Your task to perform on an android device: Find coffee shops on Maps Image 0: 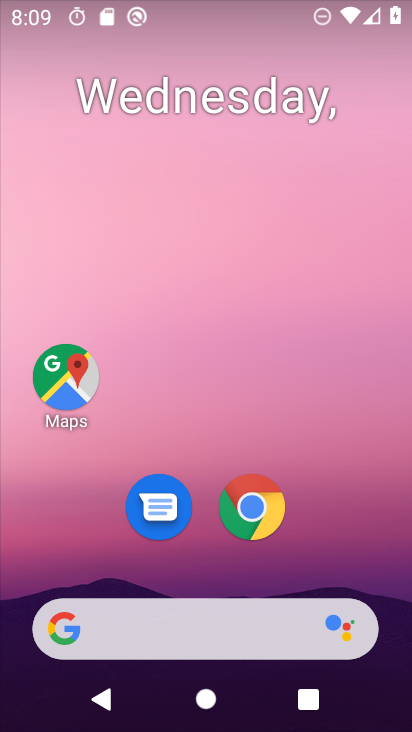
Step 0: drag from (234, 664) to (214, 135)
Your task to perform on an android device: Find coffee shops on Maps Image 1: 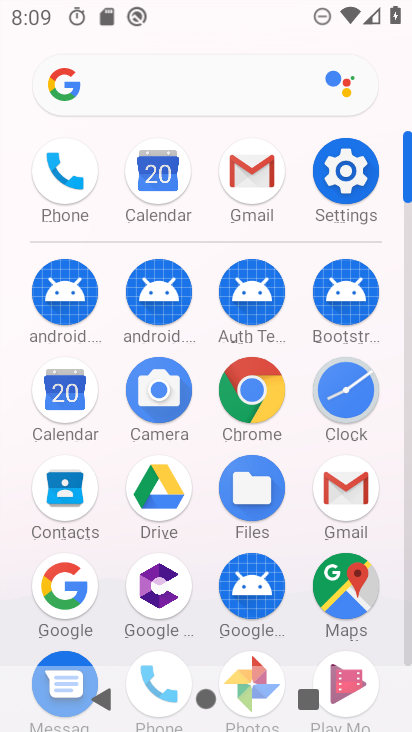
Step 1: click (360, 556)
Your task to perform on an android device: Find coffee shops on Maps Image 2: 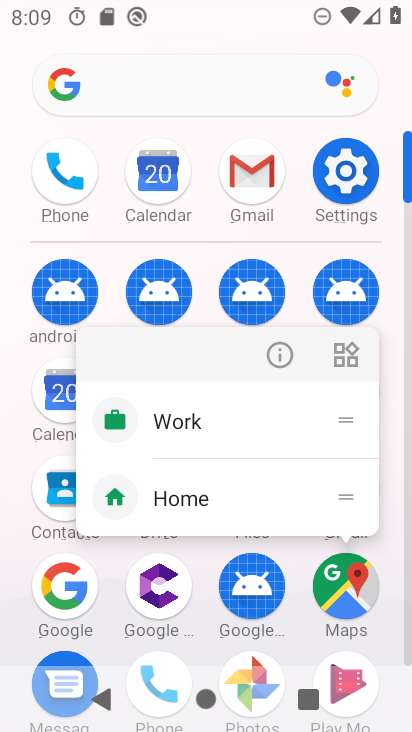
Step 2: click (339, 595)
Your task to perform on an android device: Find coffee shops on Maps Image 3: 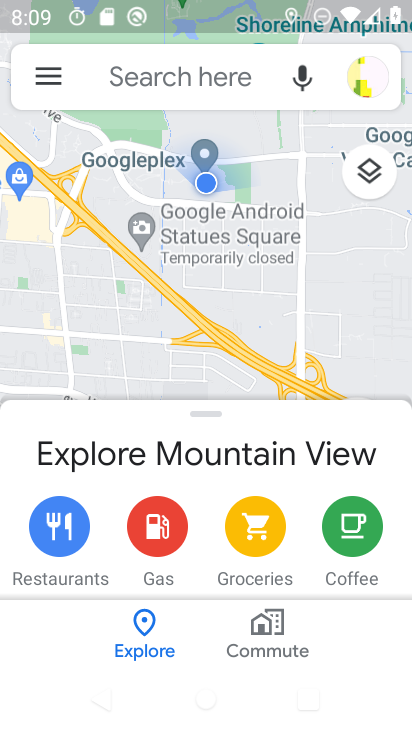
Step 3: click (144, 85)
Your task to perform on an android device: Find coffee shops on Maps Image 4: 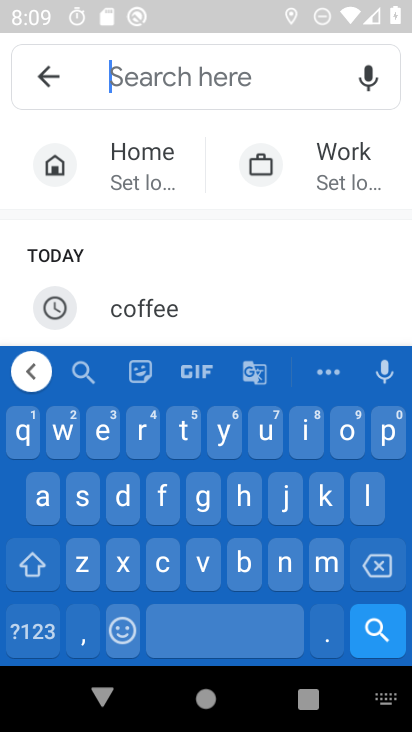
Step 4: click (177, 305)
Your task to perform on an android device: Find coffee shops on Maps Image 5: 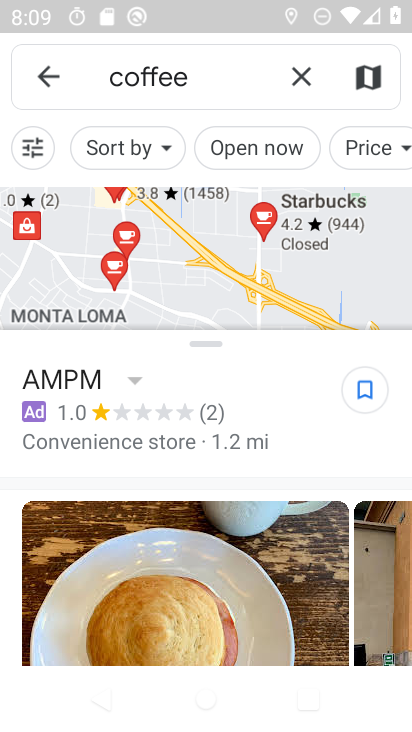
Step 5: click (185, 280)
Your task to perform on an android device: Find coffee shops on Maps Image 6: 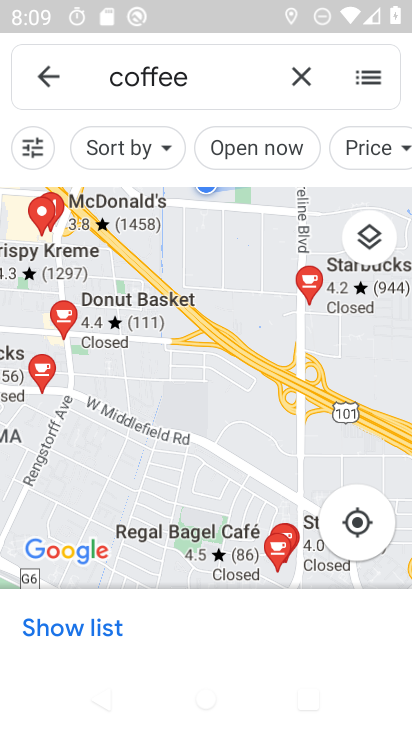
Step 6: task complete